Your task to perform on an android device: open app "Upside-Cash back on gas & food" (install if not already installed) and enter user name: "transatlantic@gmail.com" and password: "experiences" Image 0: 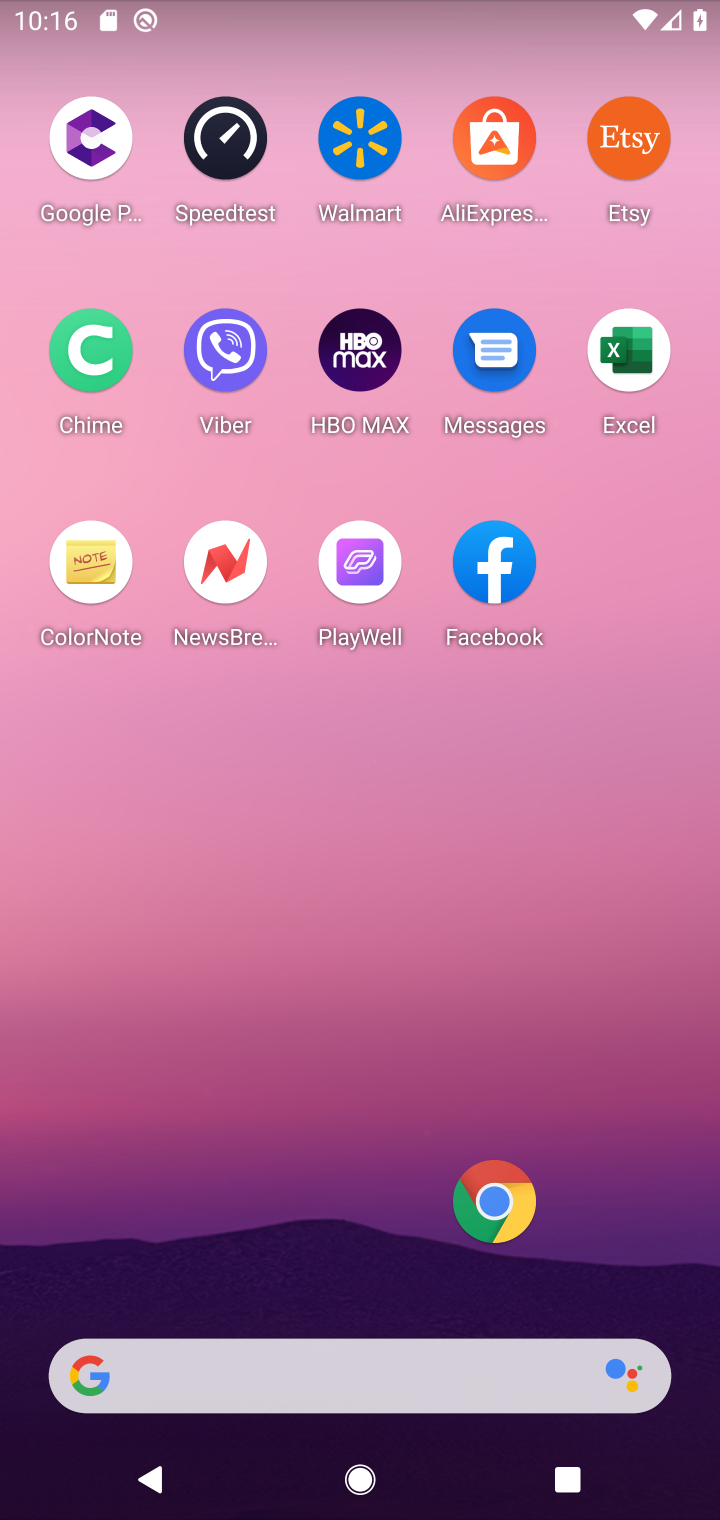
Step 0: drag from (242, 1256) to (434, 56)
Your task to perform on an android device: open app "Upside-Cash back on gas & food" (install if not already installed) and enter user name: "transatlantic@gmail.com" and password: "experiences" Image 1: 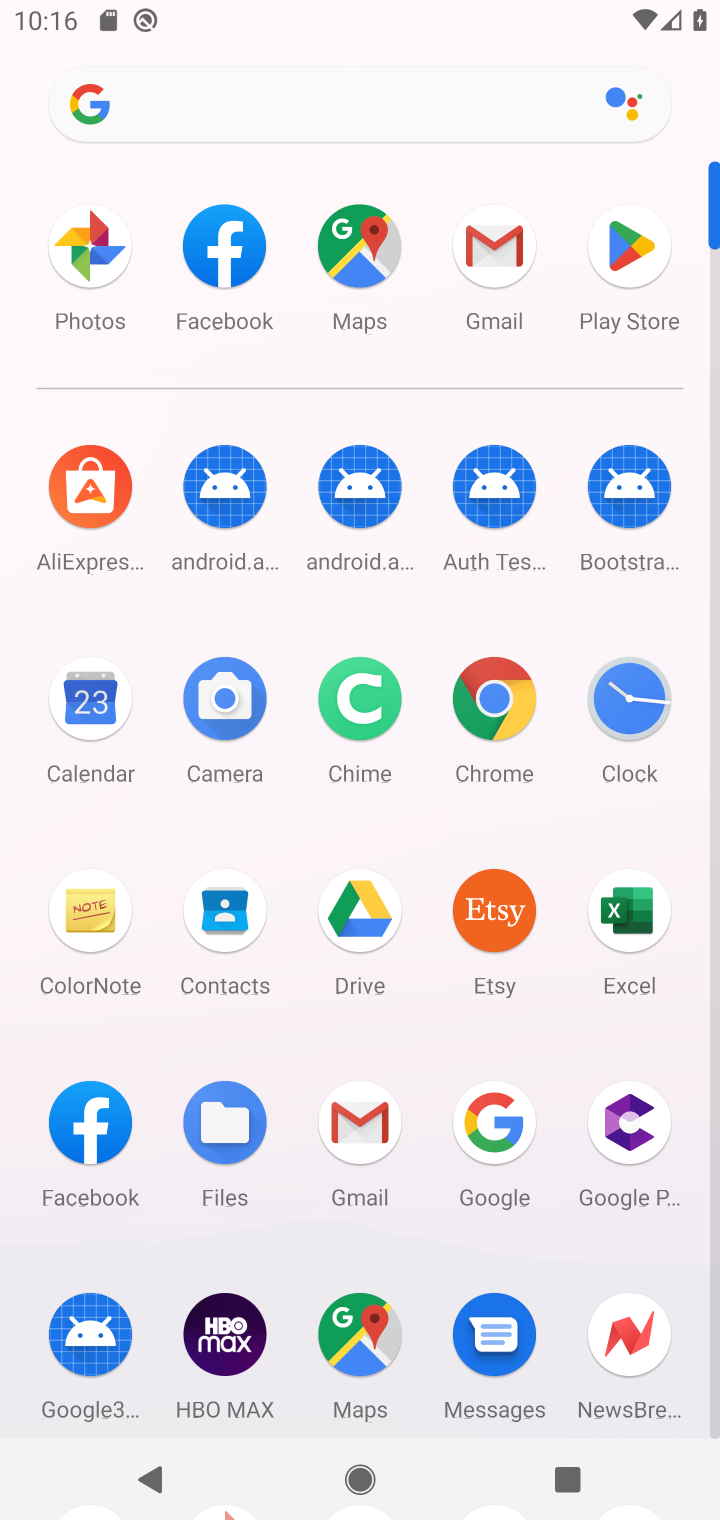
Step 1: drag from (440, 1197) to (532, 328)
Your task to perform on an android device: open app "Upside-Cash back on gas & food" (install if not already installed) and enter user name: "transatlantic@gmail.com" and password: "experiences" Image 2: 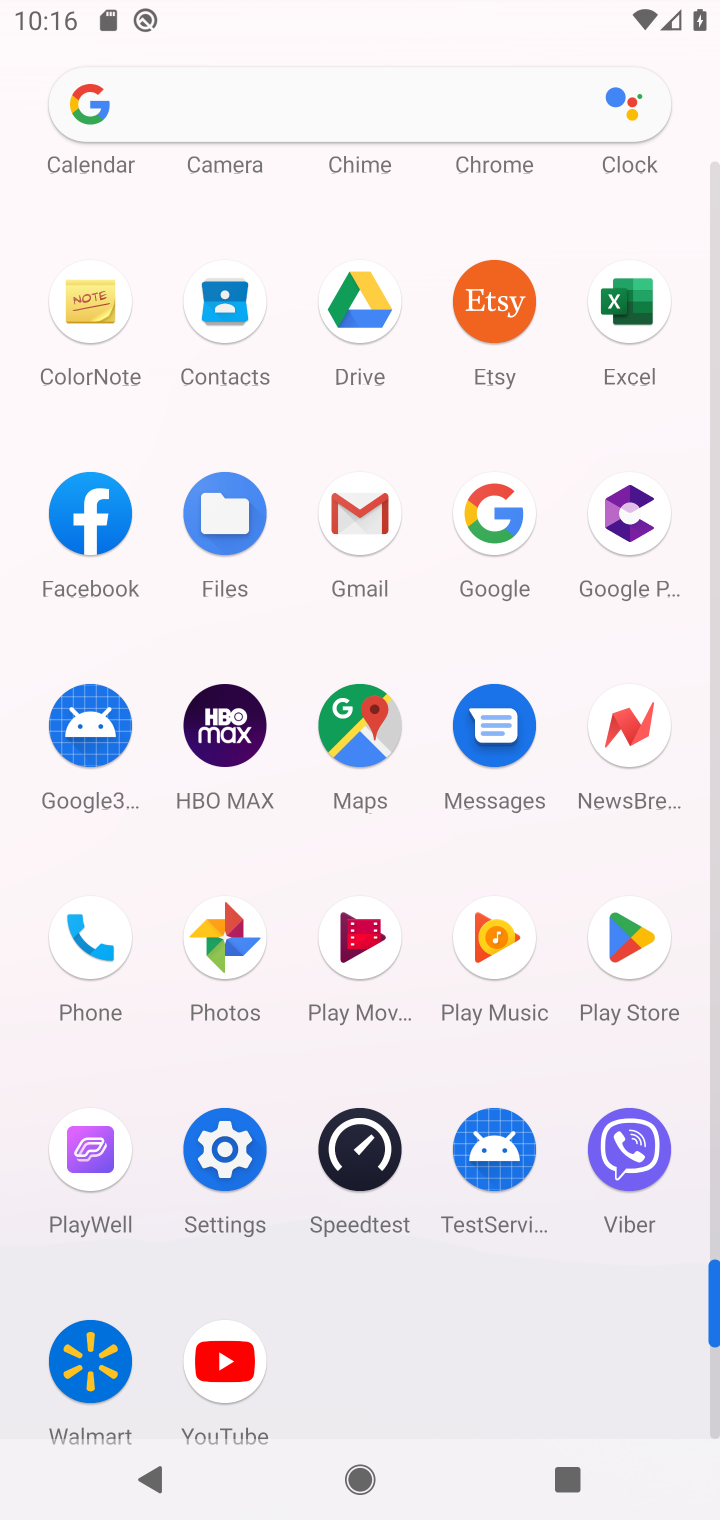
Step 2: click (625, 932)
Your task to perform on an android device: open app "Upside-Cash back on gas & food" (install if not already installed) and enter user name: "transatlantic@gmail.com" and password: "experiences" Image 3: 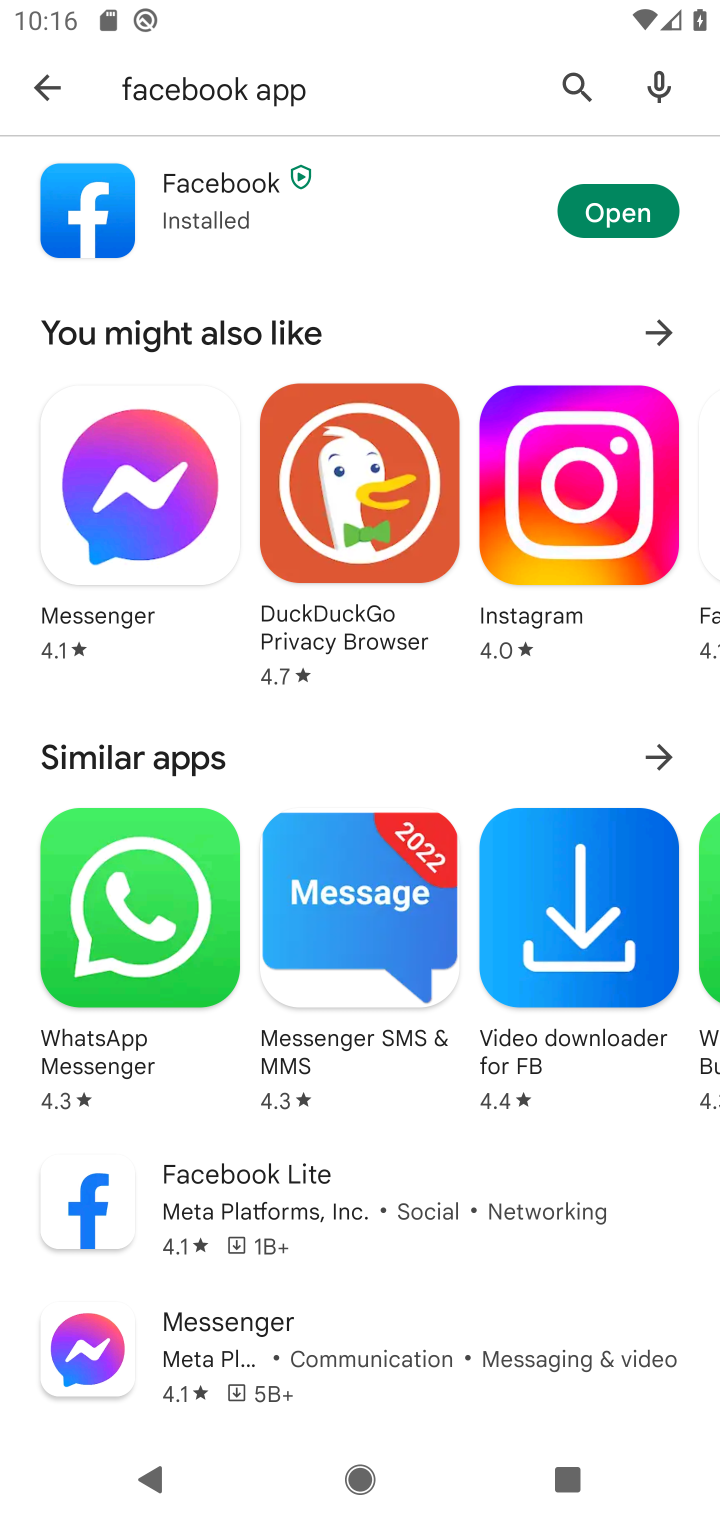
Step 3: click (32, 61)
Your task to perform on an android device: open app "Upside-Cash back on gas & food" (install if not already installed) and enter user name: "transatlantic@gmail.com" and password: "experiences" Image 4: 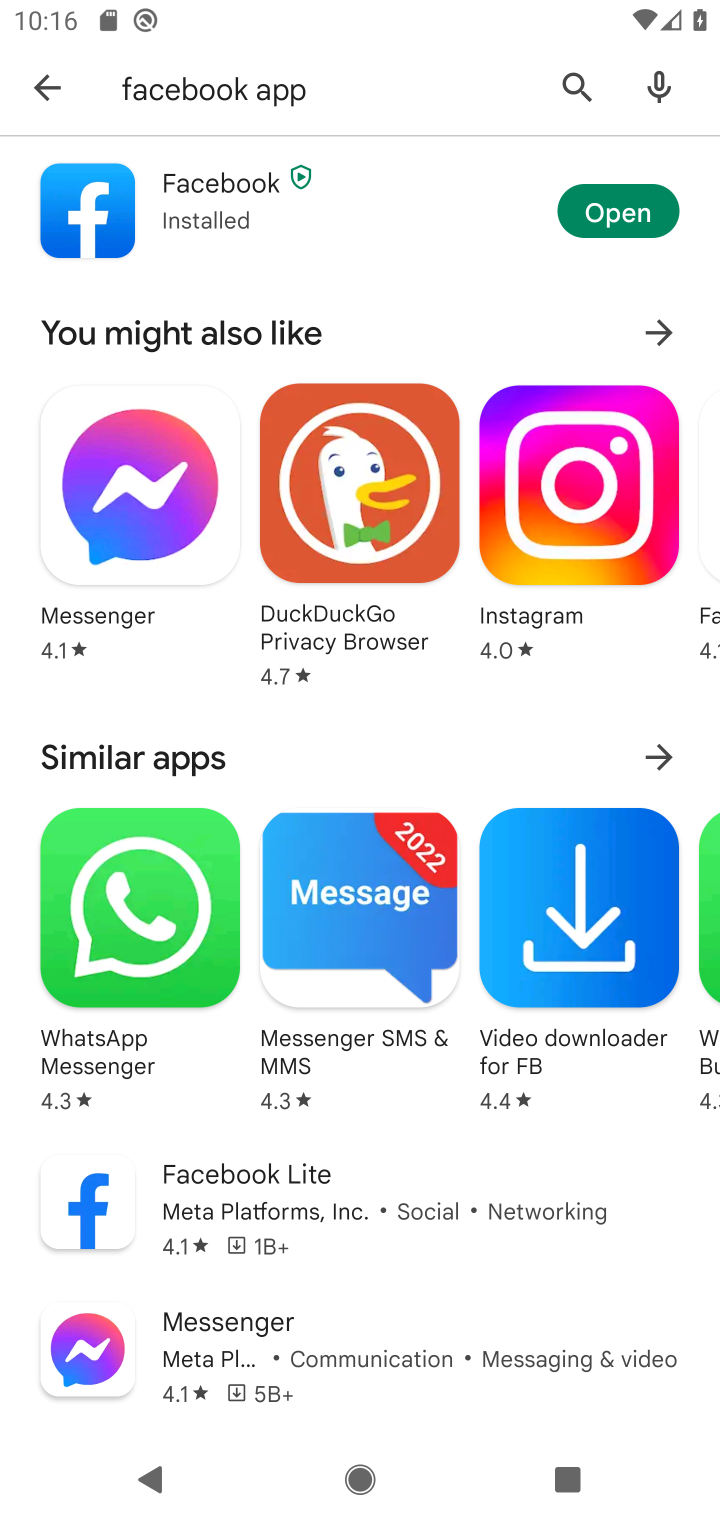
Step 4: click (39, 86)
Your task to perform on an android device: open app "Upside-Cash back on gas & food" (install if not already installed) and enter user name: "transatlantic@gmail.com" and password: "experiences" Image 5: 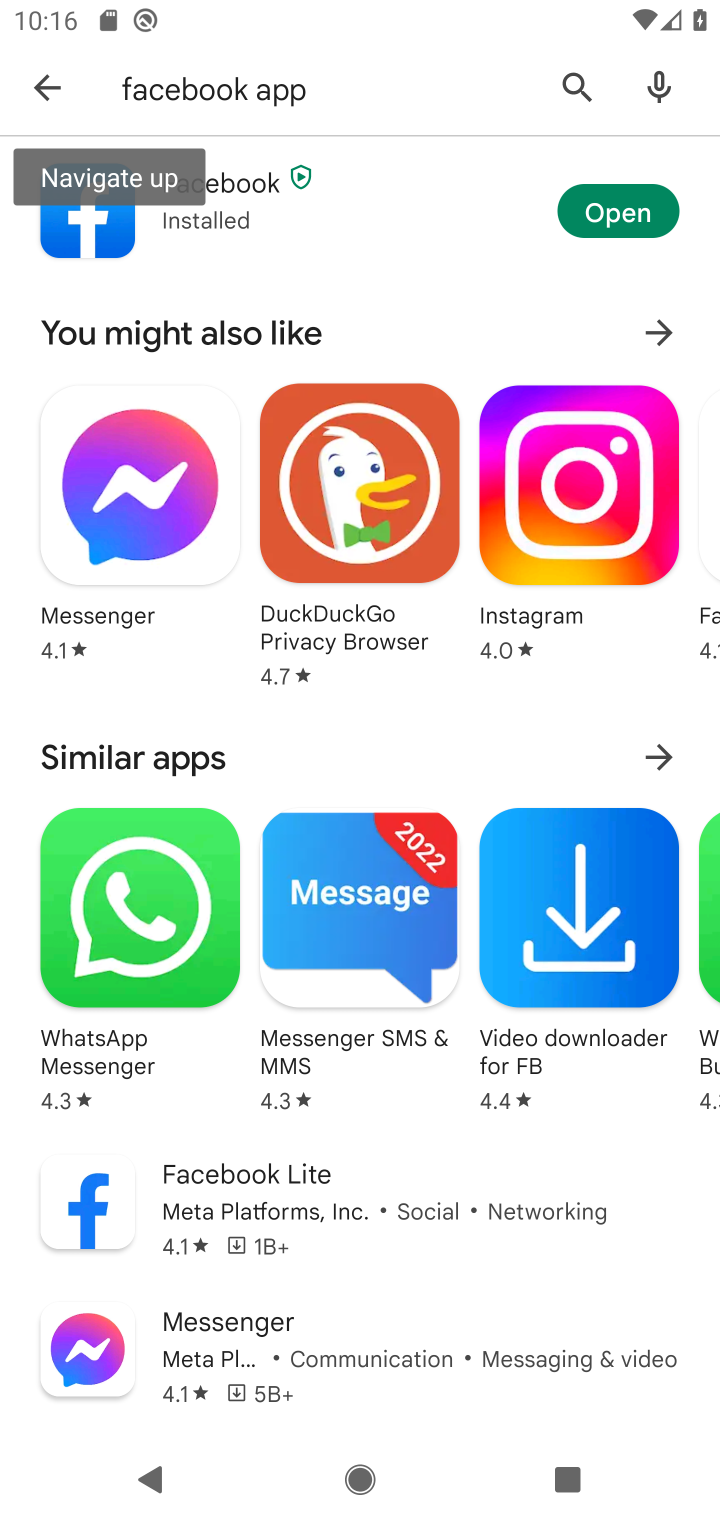
Step 5: click (569, 87)
Your task to perform on an android device: open app "Upside-Cash back on gas & food" (install if not already installed) and enter user name: "transatlantic@gmail.com" and password: "experiences" Image 6: 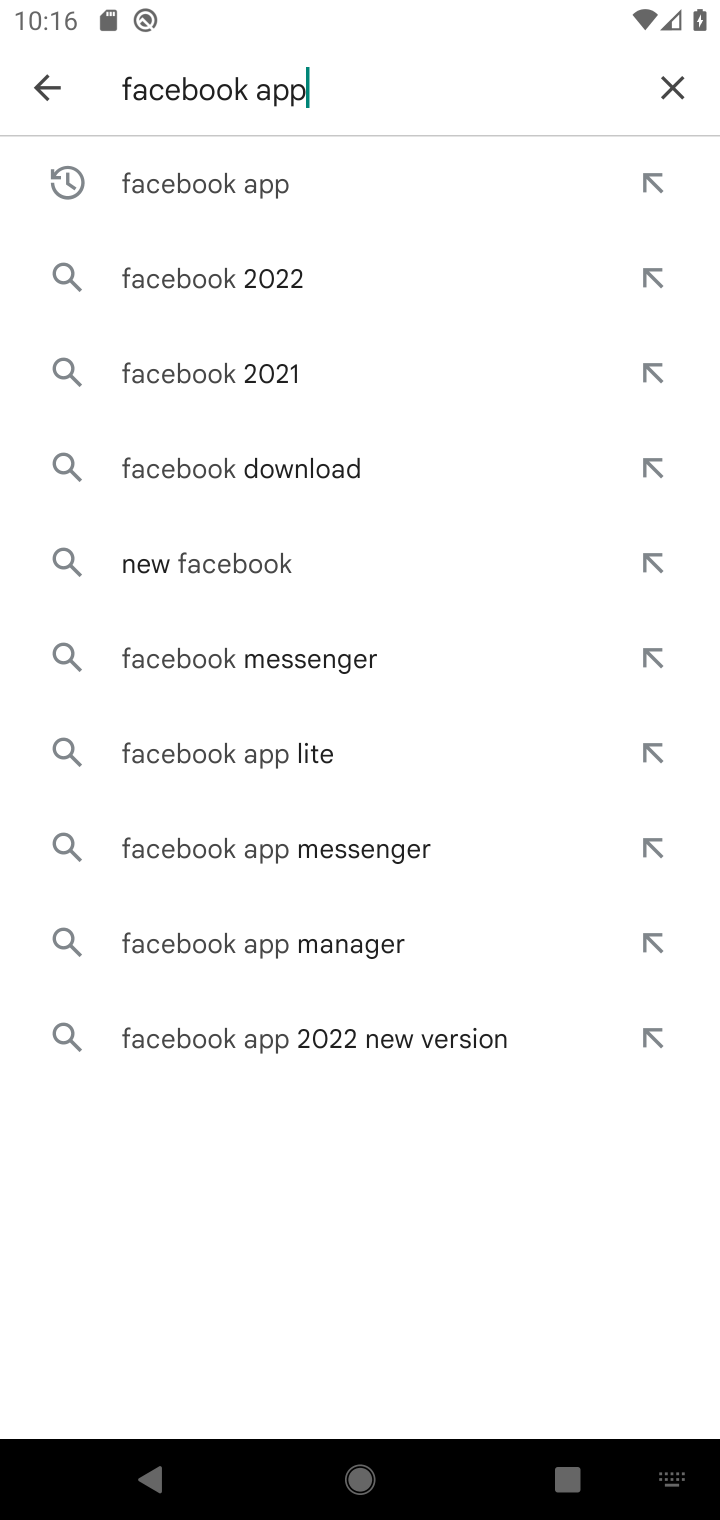
Step 6: click (693, 91)
Your task to perform on an android device: open app "Upside-Cash back on gas & food" (install if not already installed) and enter user name: "transatlantic@gmail.com" and password: "experiences" Image 7: 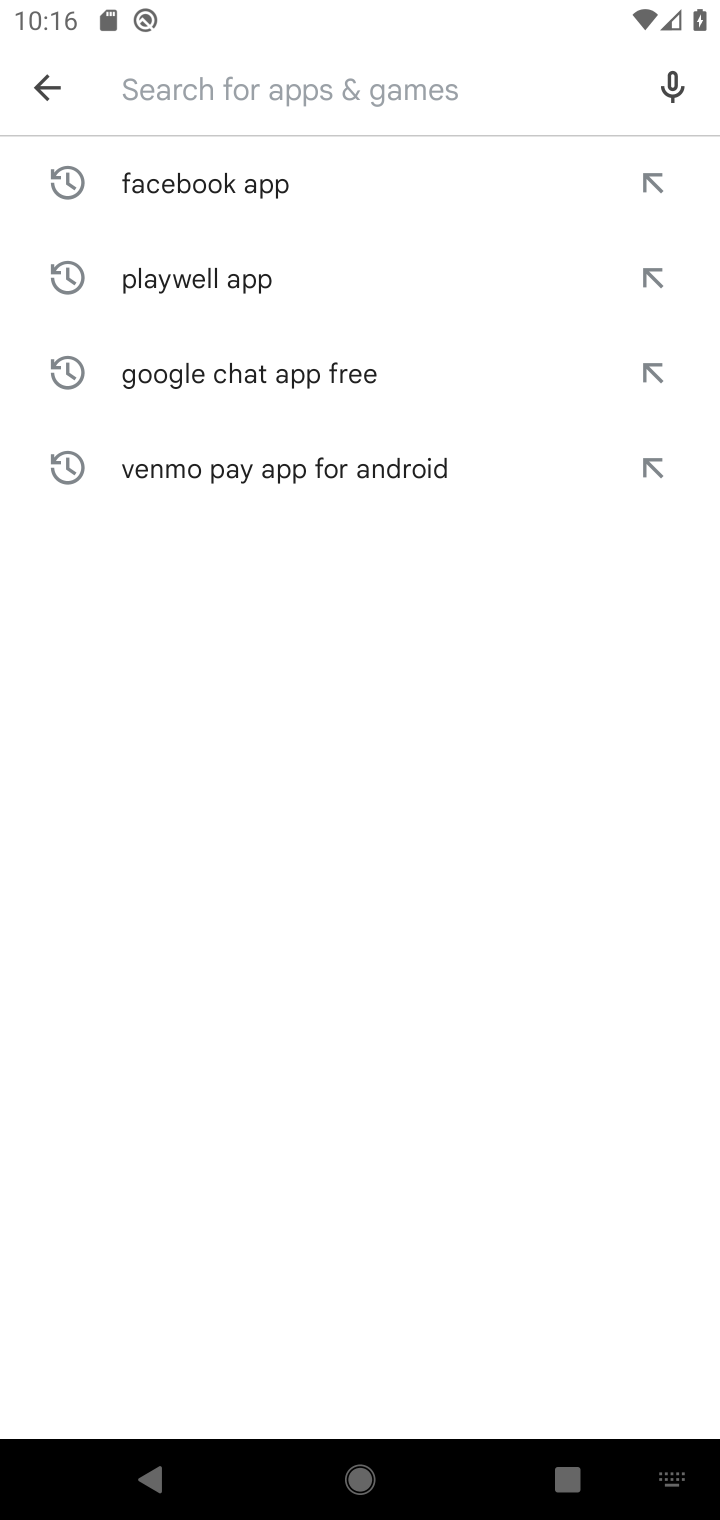
Step 7: click (310, 69)
Your task to perform on an android device: open app "Upside-Cash back on gas & food" (install if not already installed) and enter user name: "transatlantic@gmail.com" and password: "experiences" Image 8: 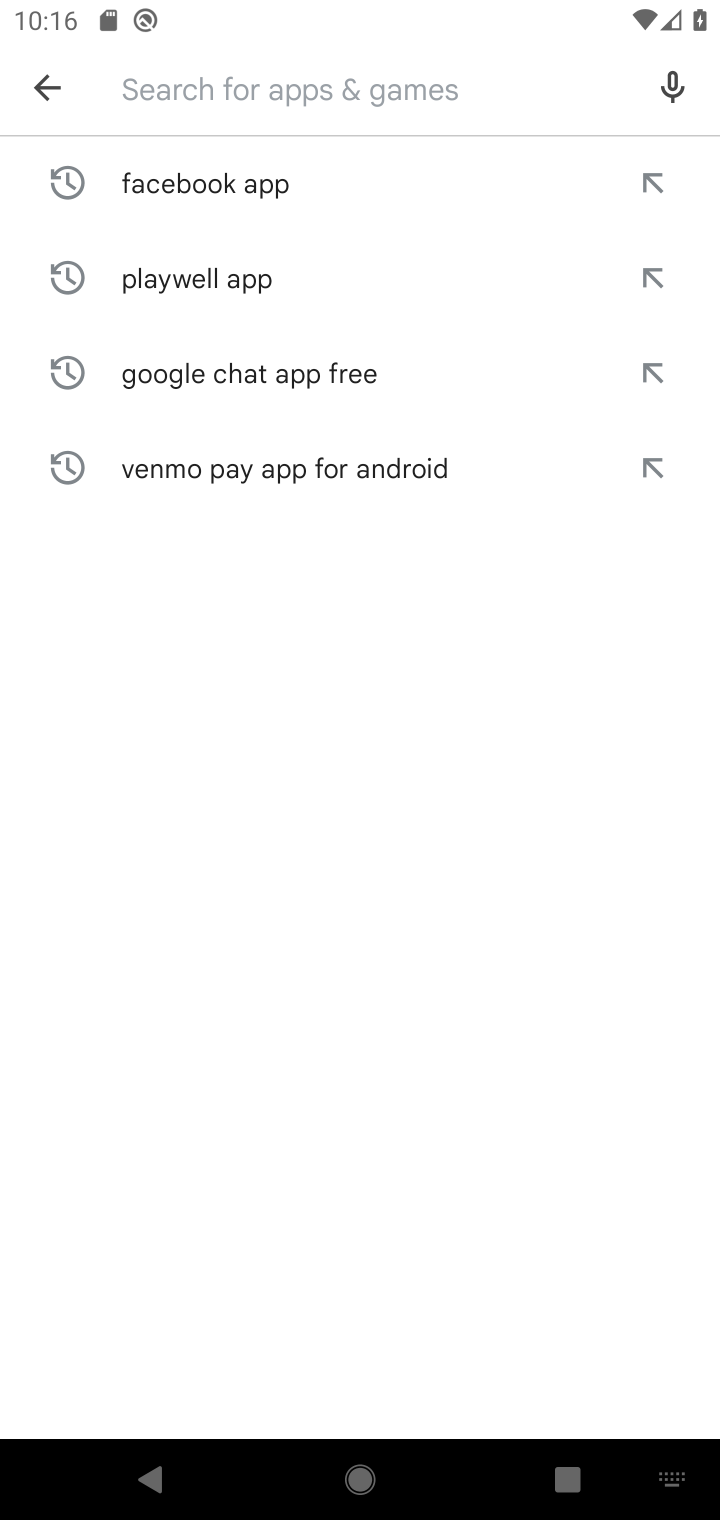
Step 8: type "Upside "
Your task to perform on an android device: open app "Upside-Cash back on gas & food" (install if not already installed) and enter user name: "transatlantic@gmail.com" and password: "experiences" Image 9: 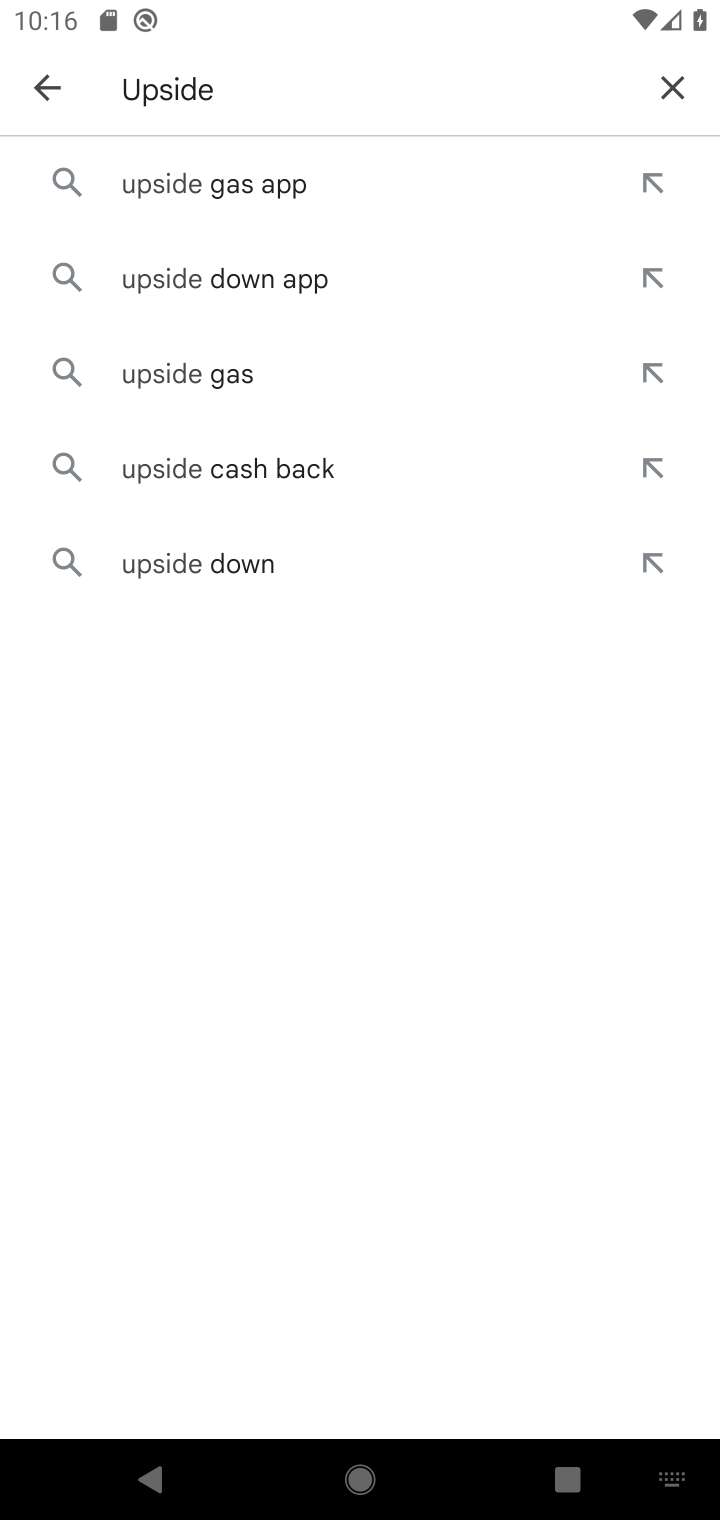
Step 9: click (257, 194)
Your task to perform on an android device: open app "Upside-Cash back on gas & food" (install if not already installed) and enter user name: "transatlantic@gmail.com" and password: "experiences" Image 10: 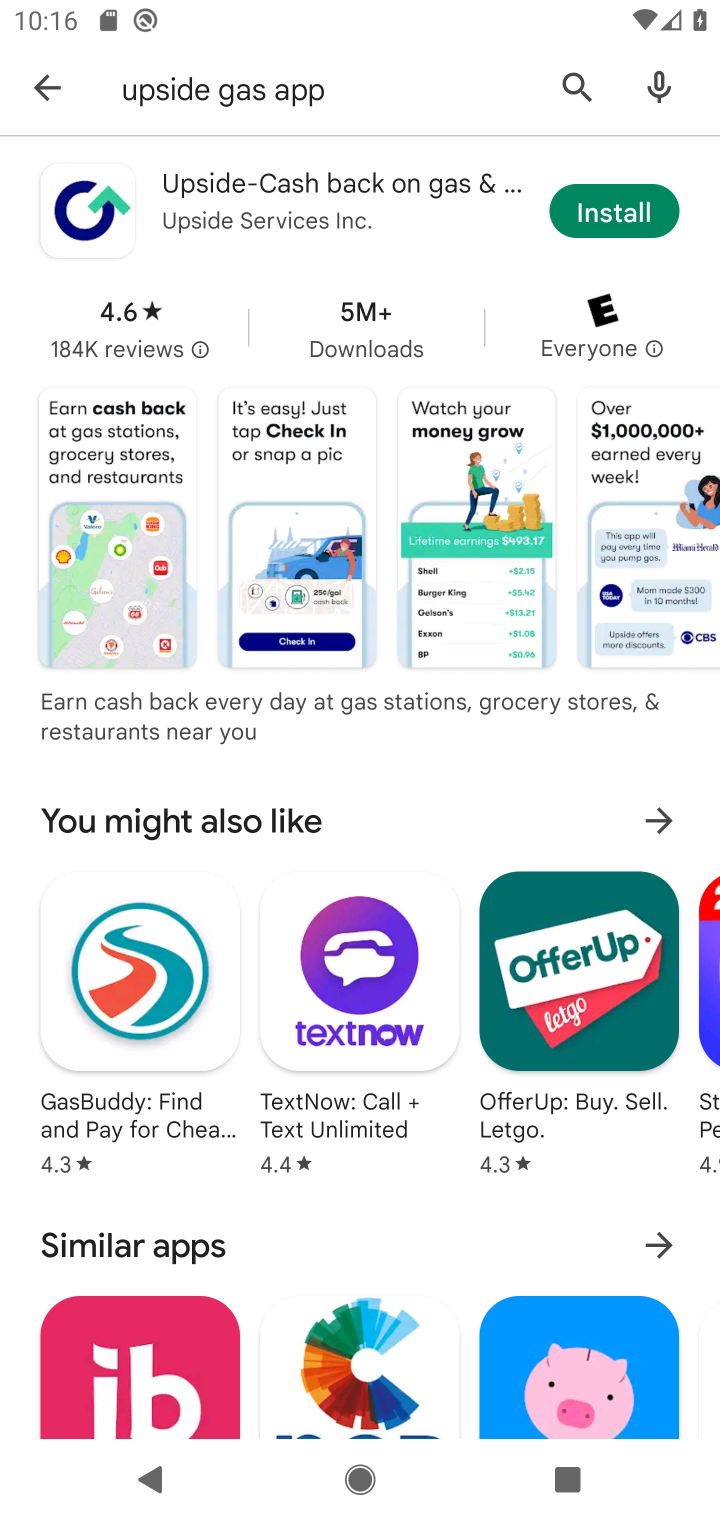
Step 10: click (622, 202)
Your task to perform on an android device: open app "Upside-Cash back on gas & food" (install if not already installed) and enter user name: "transatlantic@gmail.com" and password: "experiences" Image 11: 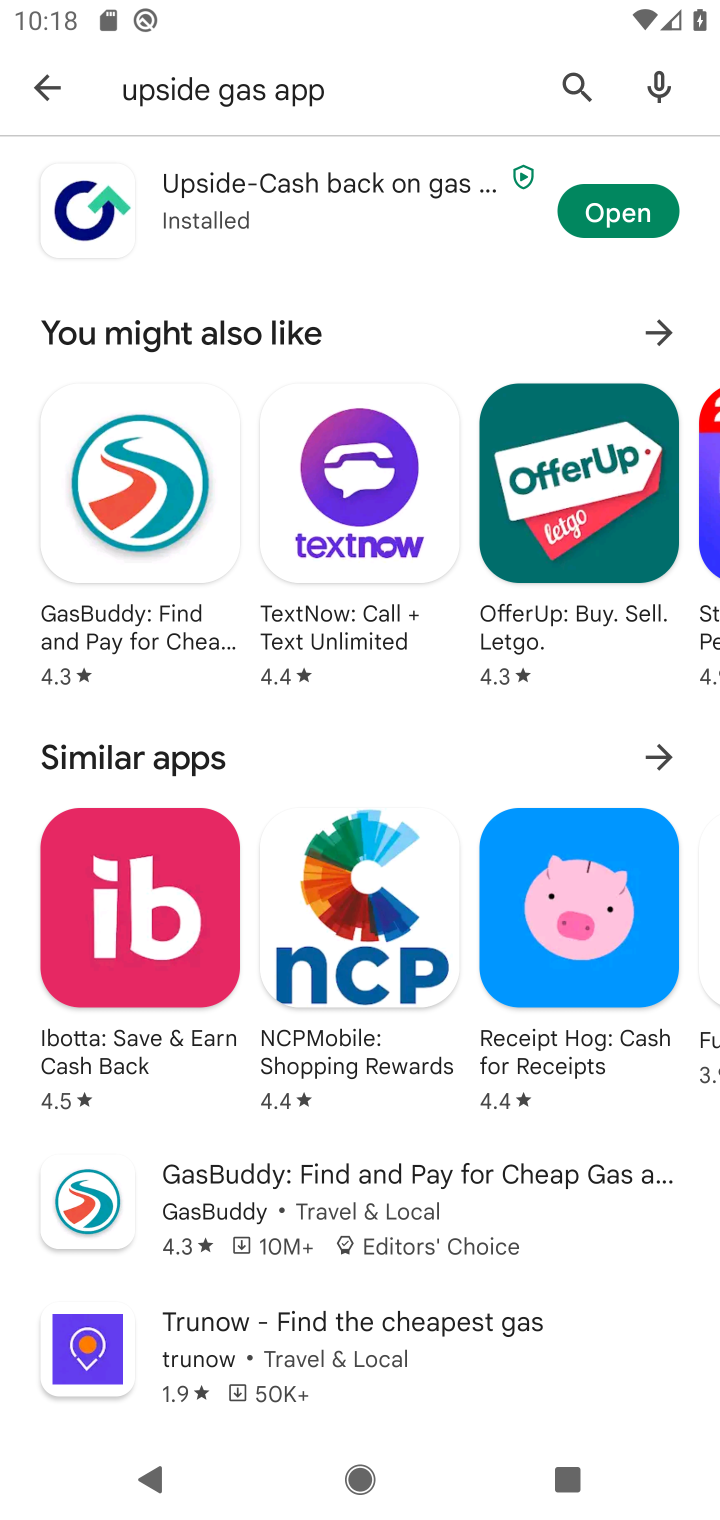
Step 11: task complete